Your task to perform on an android device: Check the settings for the Google Play Movies app Image 0: 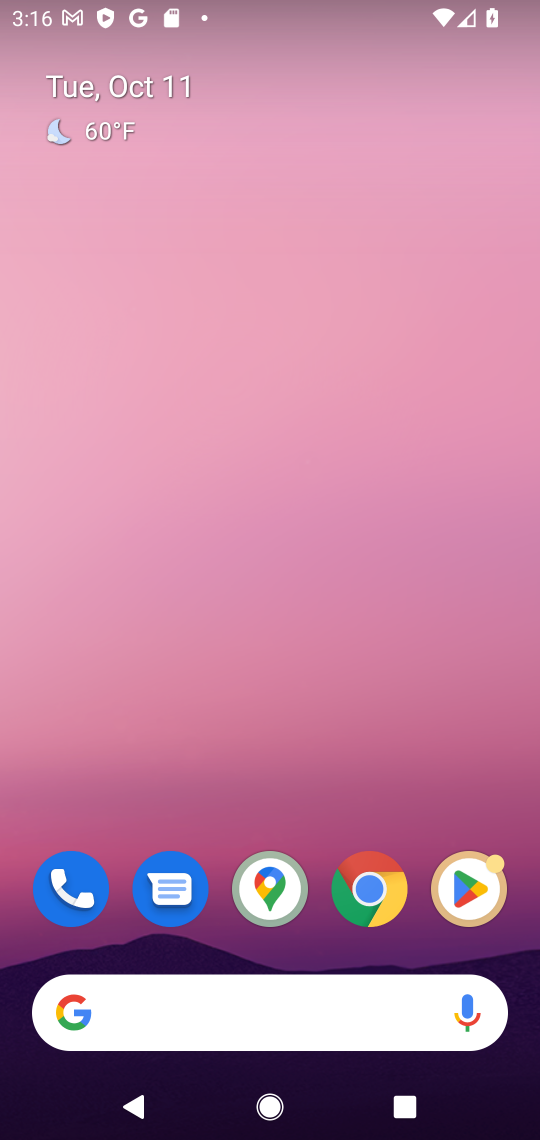
Step 0: drag from (146, 690) to (165, 562)
Your task to perform on an android device: Check the settings for the Google Play Movies app Image 1: 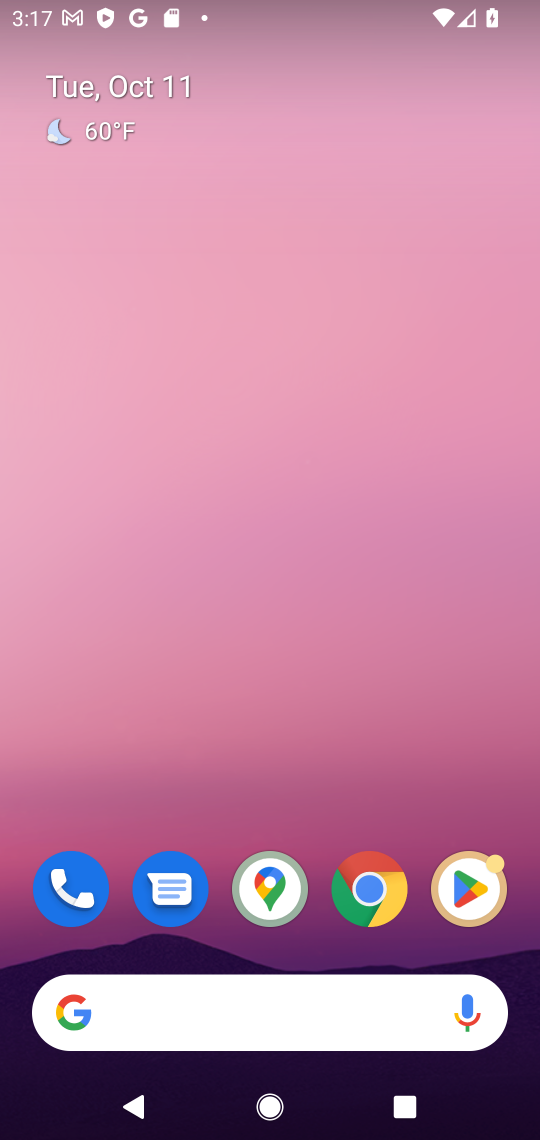
Step 1: drag from (265, 956) to (267, 333)
Your task to perform on an android device: Check the settings for the Google Play Movies app Image 2: 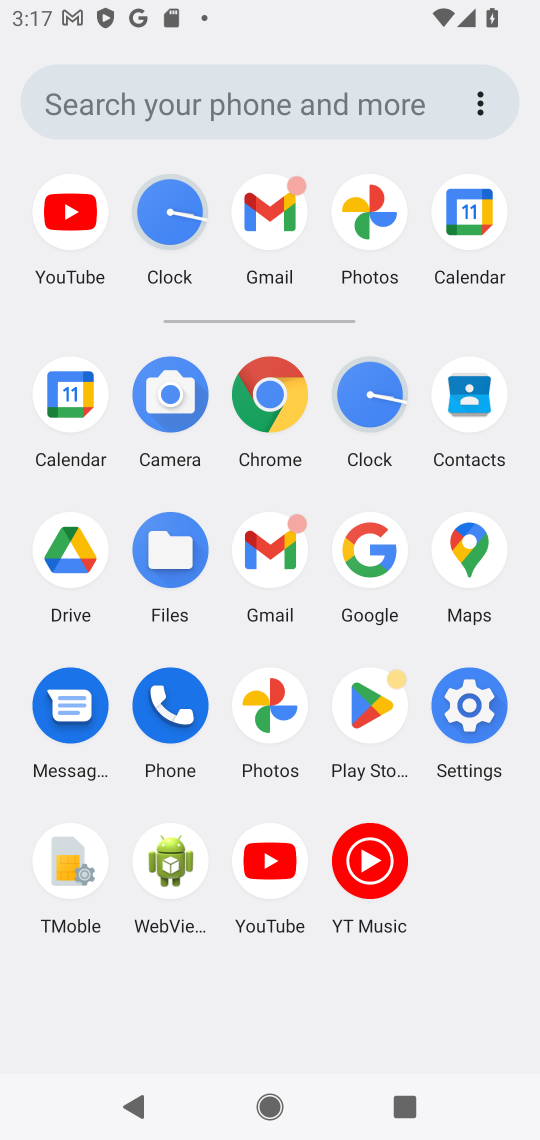
Step 2: click (340, 697)
Your task to perform on an android device: Check the settings for the Google Play Movies app Image 3: 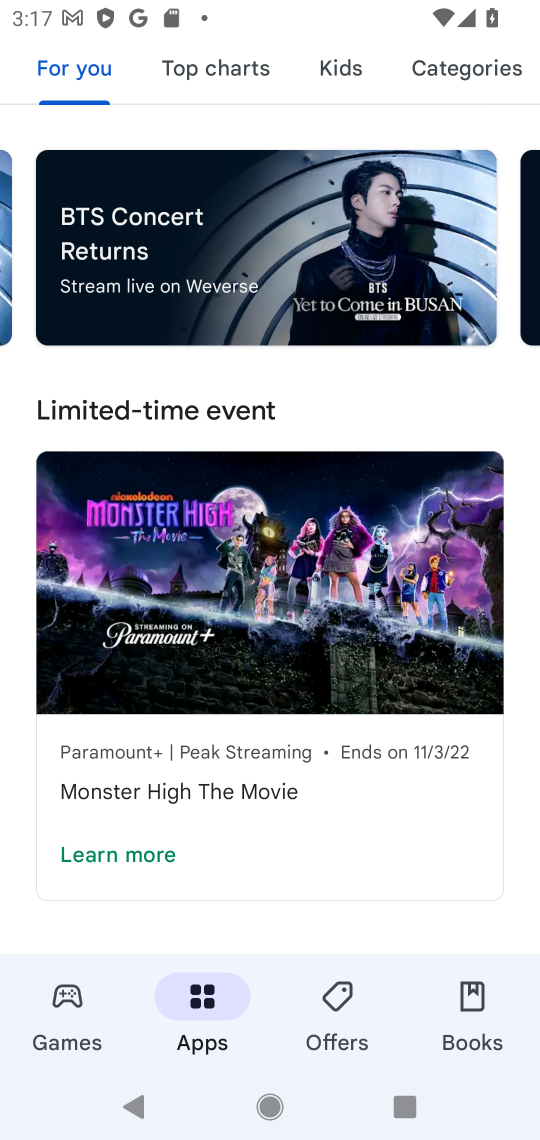
Step 3: drag from (285, 483) to (278, 828)
Your task to perform on an android device: Check the settings for the Google Play Movies app Image 4: 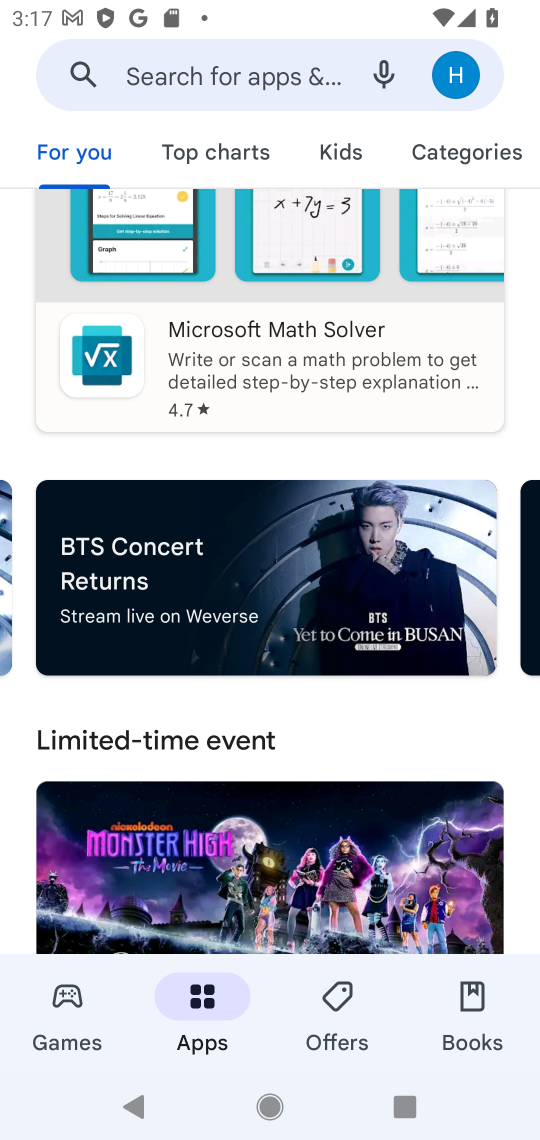
Step 4: click (275, 67)
Your task to perform on an android device: Check the settings for the Google Play Movies app Image 5: 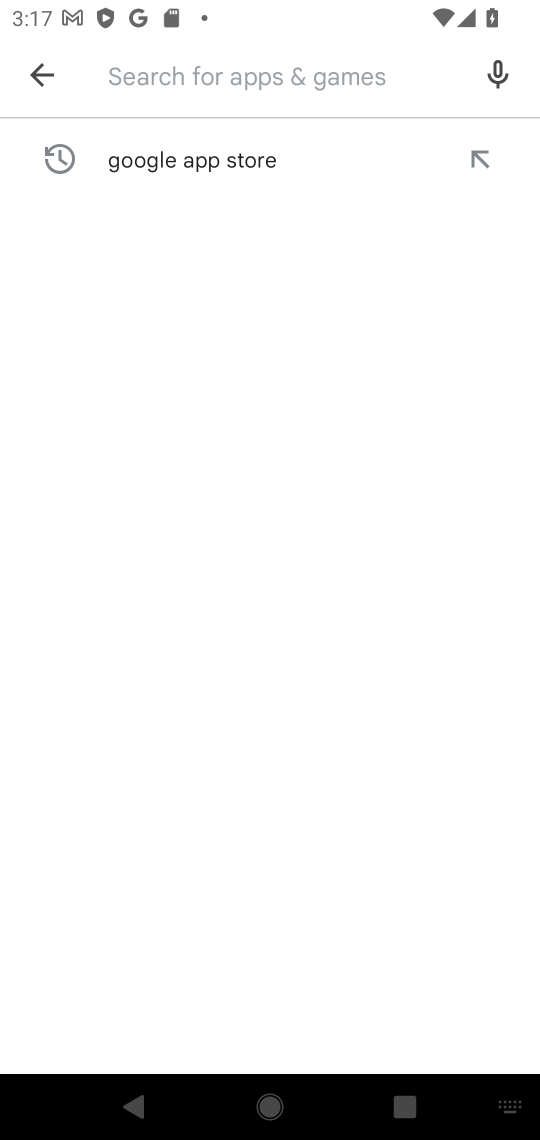
Step 5: type "Google Play Movies app "
Your task to perform on an android device: Check the settings for the Google Play Movies app Image 6: 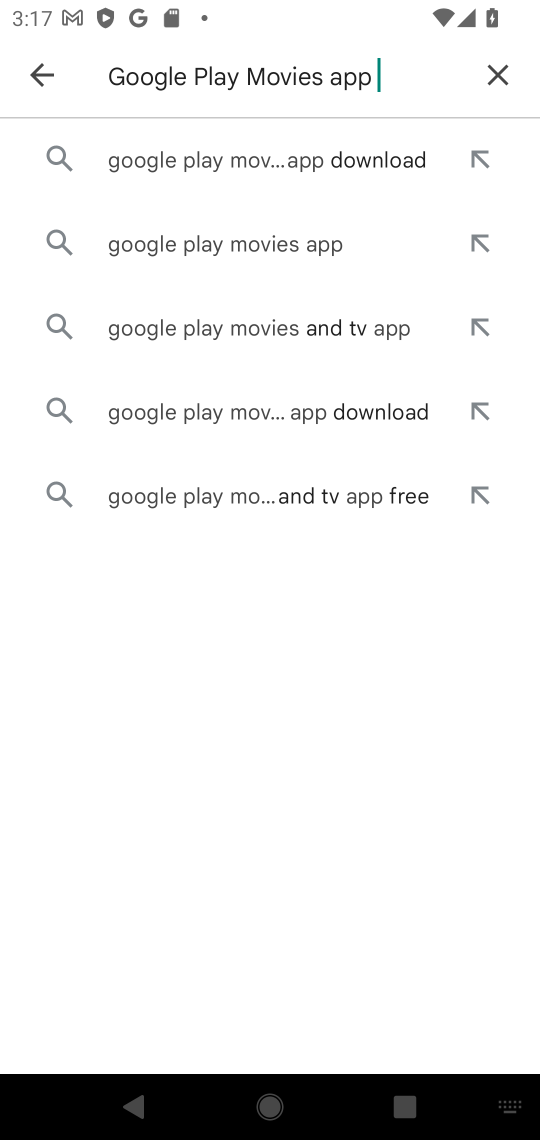
Step 6: click (264, 234)
Your task to perform on an android device: Check the settings for the Google Play Movies app Image 7: 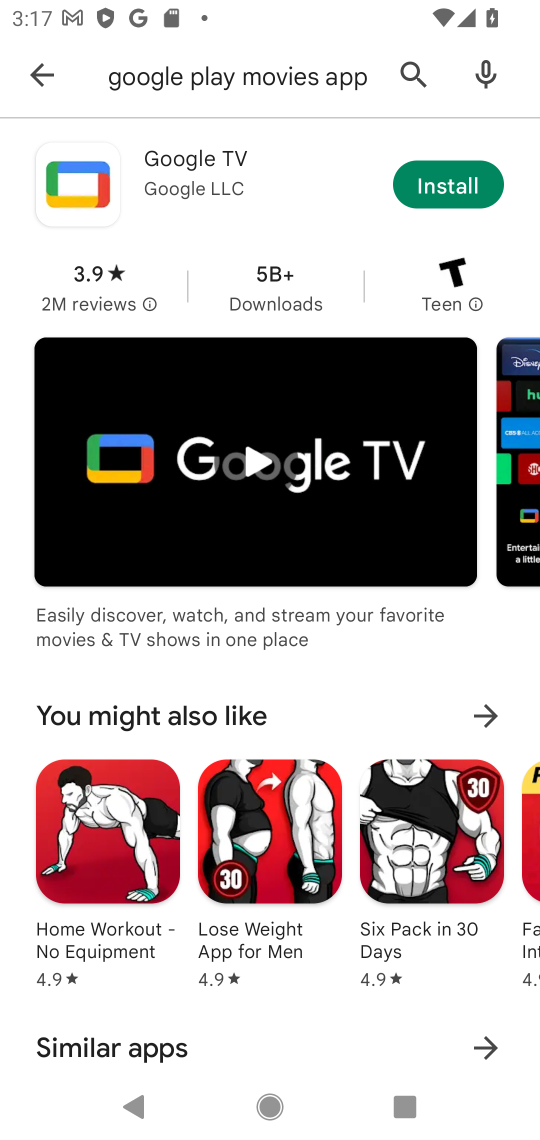
Step 7: click (473, 168)
Your task to perform on an android device: Check the settings for the Google Play Movies app Image 8: 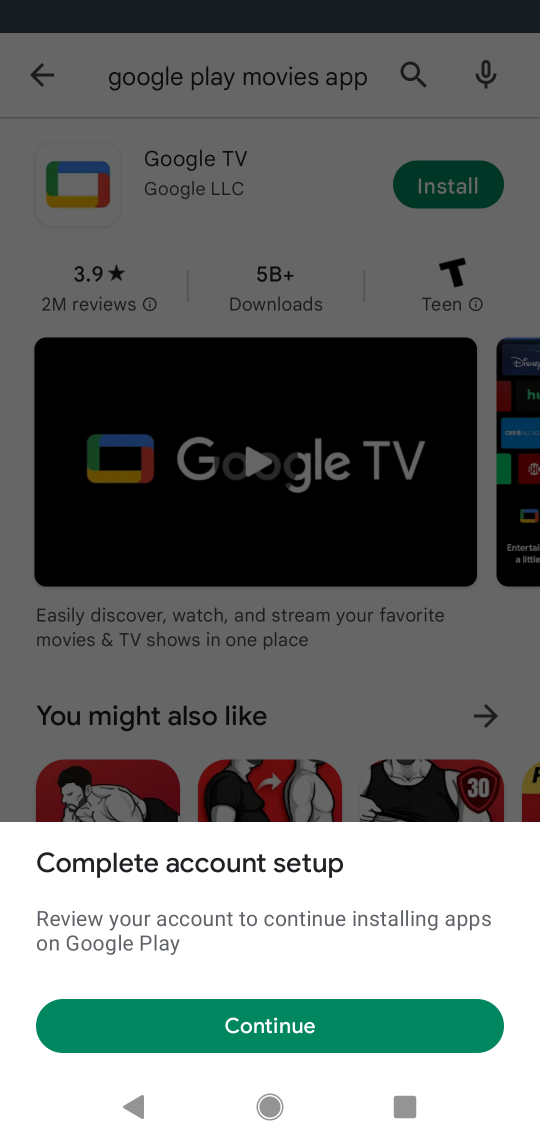
Step 8: click (339, 1015)
Your task to perform on an android device: Check the settings for the Google Play Movies app Image 9: 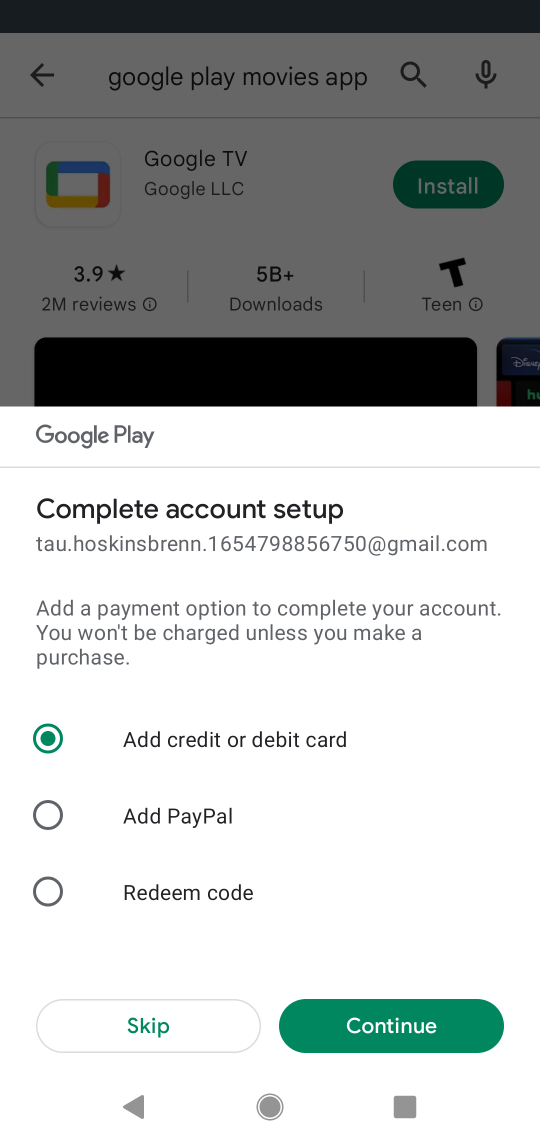
Step 9: task complete